Your task to perform on an android device: clear history in the chrome app Image 0: 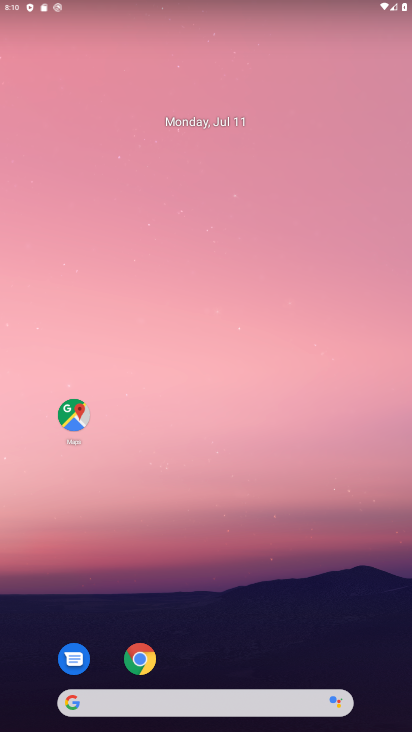
Step 0: click (129, 667)
Your task to perform on an android device: clear history in the chrome app Image 1: 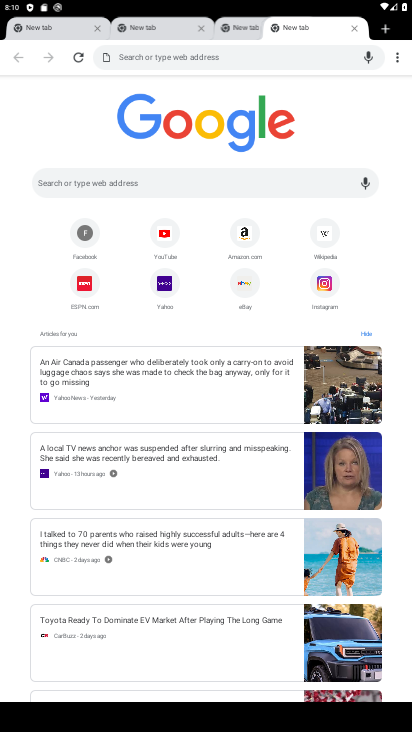
Step 1: click (397, 52)
Your task to perform on an android device: clear history in the chrome app Image 2: 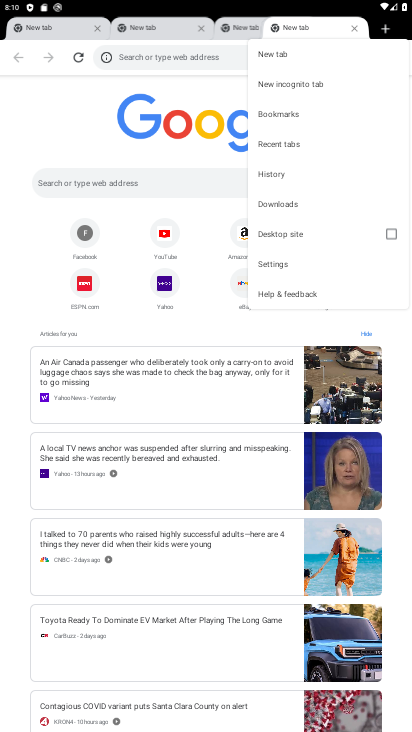
Step 2: click (282, 177)
Your task to perform on an android device: clear history in the chrome app Image 3: 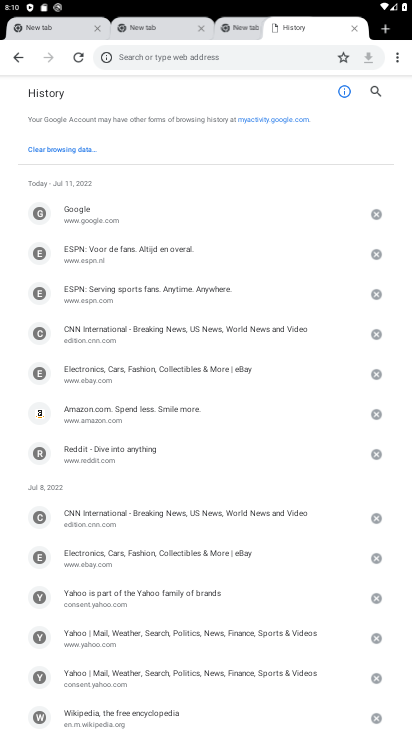
Step 3: click (41, 147)
Your task to perform on an android device: clear history in the chrome app Image 4: 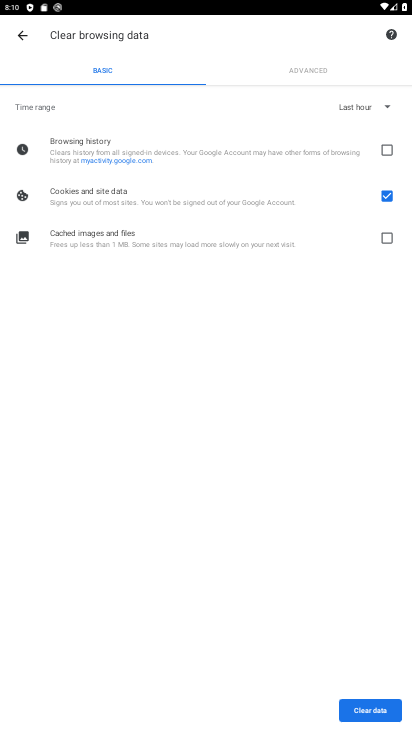
Step 4: click (361, 709)
Your task to perform on an android device: clear history in the chrome app Image 5: 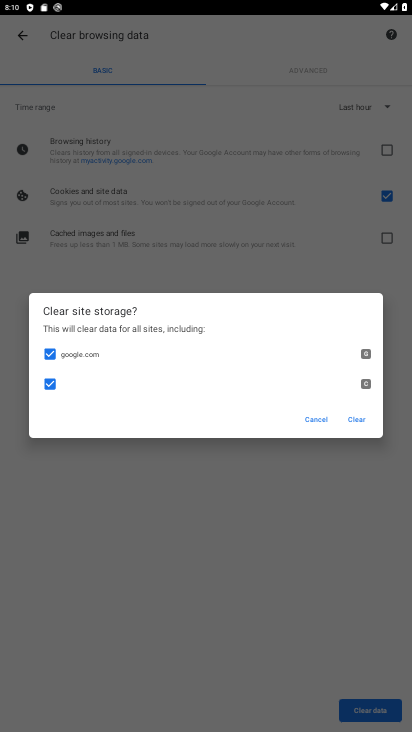
Step 5: click (354, 416)
Your task to perform on an android device: clear history in the chrome app Image 6: 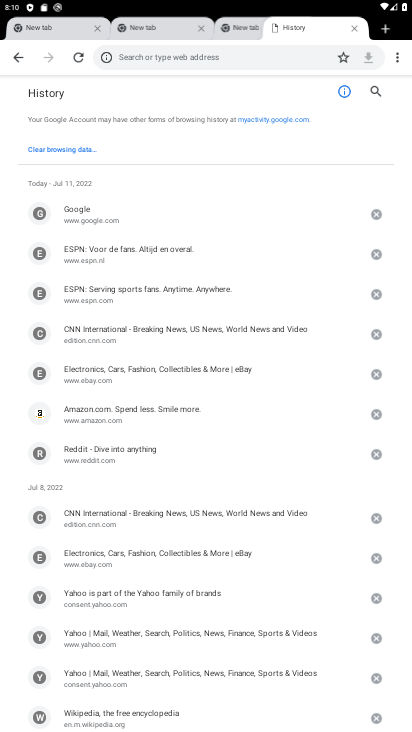
Step 6: click (61, 149)
Your task to perform on an android device: clear history in the chrome app Image 7: 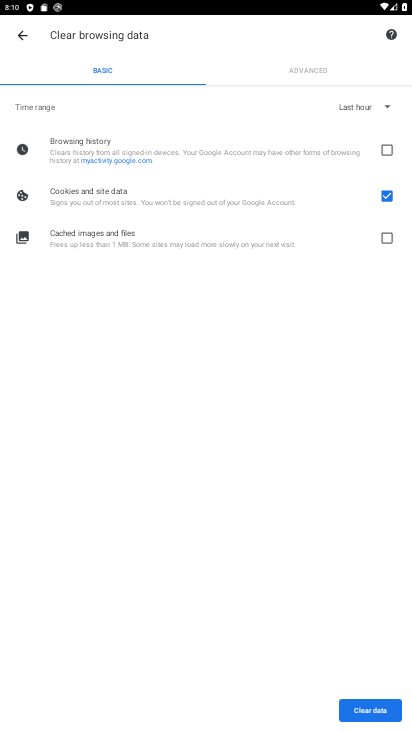
Step 7: click (377, 705)
Your task to perform on an android device: clear history in the chrome app Image 8: 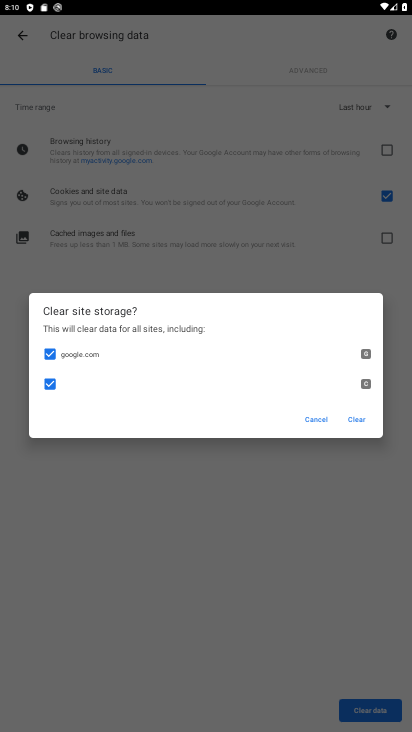
Step 8: click (355, 707)
Your task to perform on an android device: clear history in the chrome app Image 9: 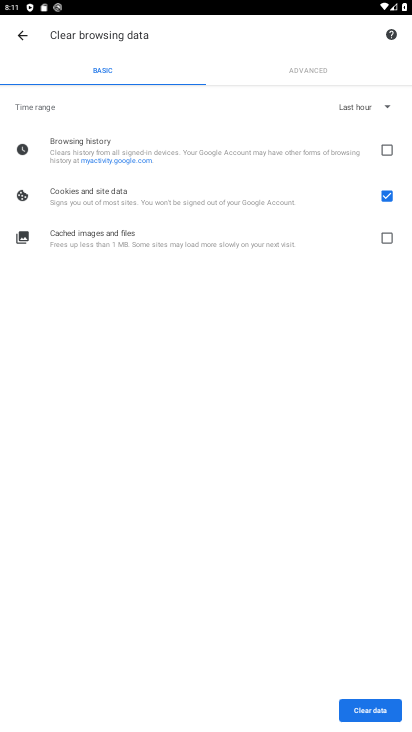
Step 9: task complete